Your task to perform on an android device: open the mobile data screen to see how much data has been used Image 0: 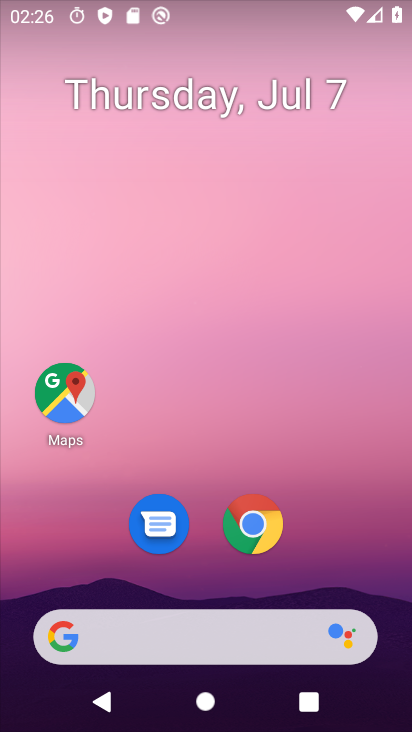
Step 0: drag from (175, 447) to (254, 15)
Your task to perform on an android device: open the mobile data screen to see how much data has been used Image 1: 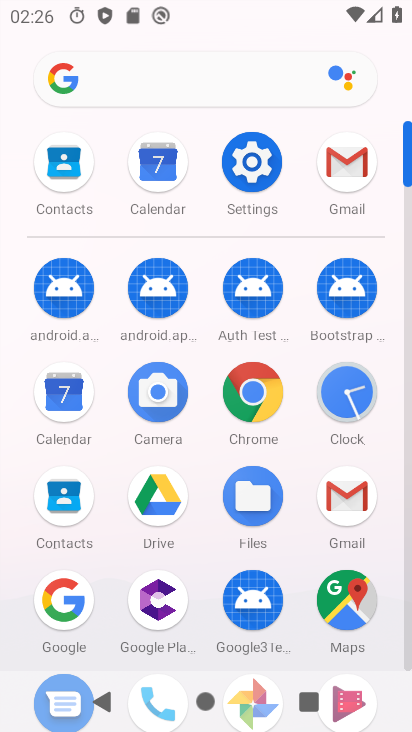
Step 1: click (265, 161)
Your task to perform on an android device: open the mobile data screen to see how much data has been used Image 2: 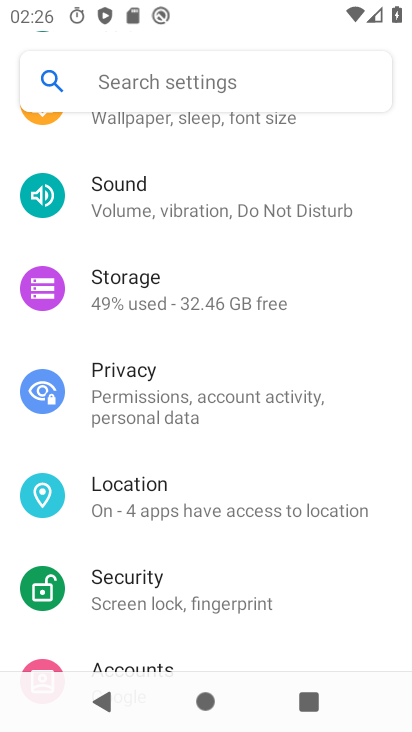
Step 2: drag from (204, 448) to (235, 185)
Your task to perform on an android device: open the mobile data screen to see how much data has been used Image 3: 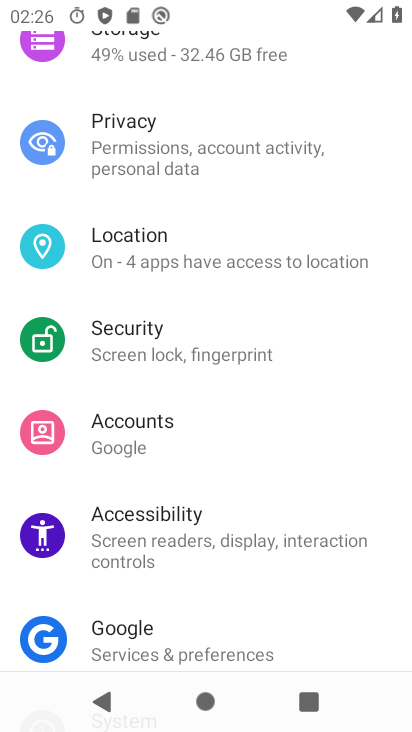
Step 3: drag from (228, 230) to (218, 490)
Your task to perform on an android device: open the mobile data screen to see how much data has been used Image 4: 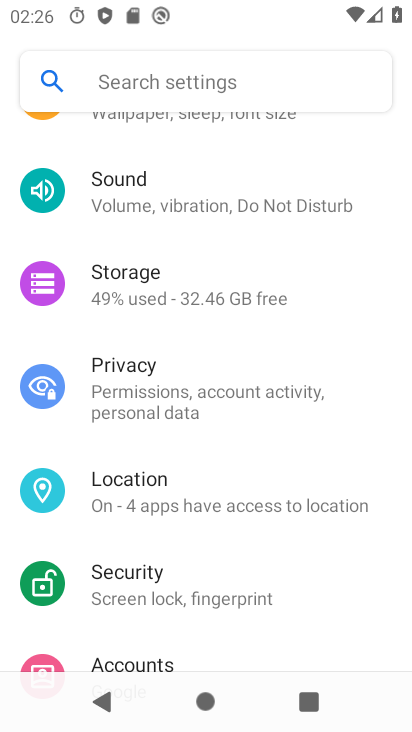
Step 4: drag from (244, 280) to (257, 667)
Your task to perform on an android device: open the mobile data screen to see how much data has been used Image 5: 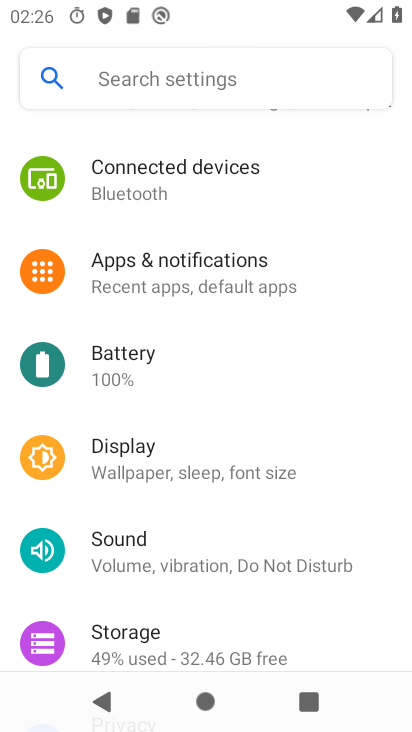
Step 5: drag from (262, 408) to (248, 684)
Your task to perform on an android device: open the mobile data screen to see how much data has been used Image 6: 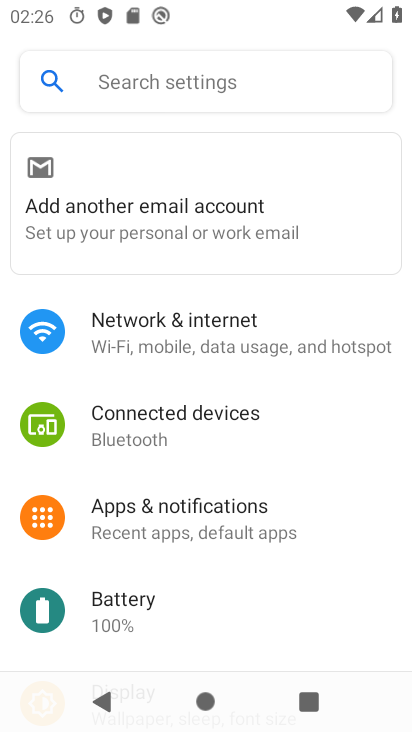
Step 6: click (224, 342)
Your task to perform on an android device: open the mobile data screen to see how much data has been used Image 7: 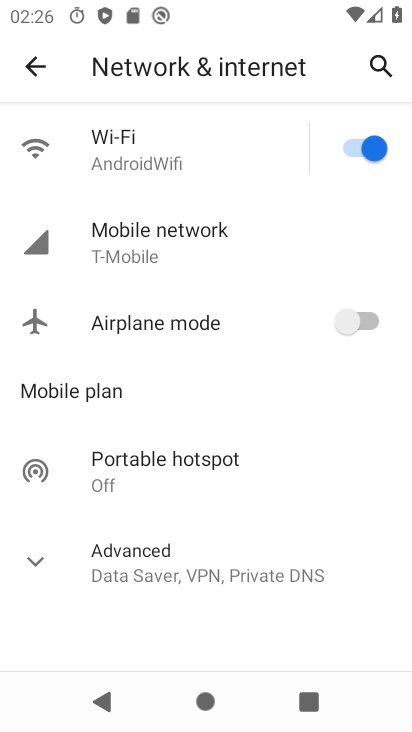
Step 7: click (178, 224)
Your task to perform on an android device: open the mobile data screen to see how much data has been used Image 8: 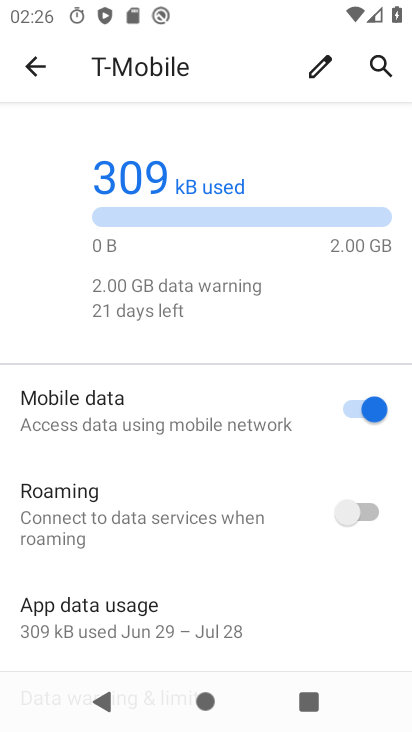
Step 8: task complete